Your task to perform on an android device: toggle location history Image 0: 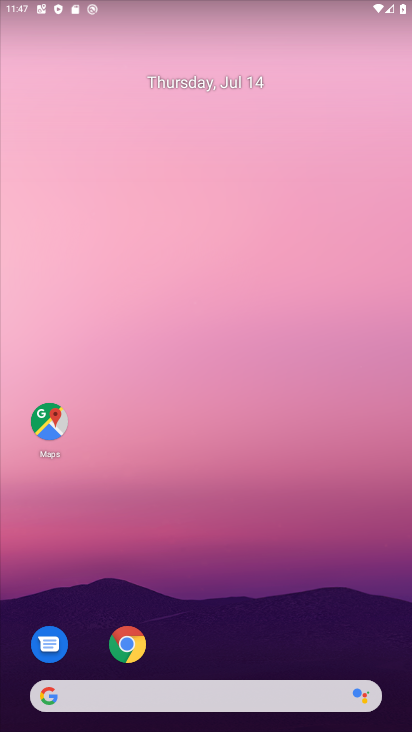
Step 0: drag from (235, 584) to (291, 215)
Your task to perform on an android device: toggle location history Image 1: 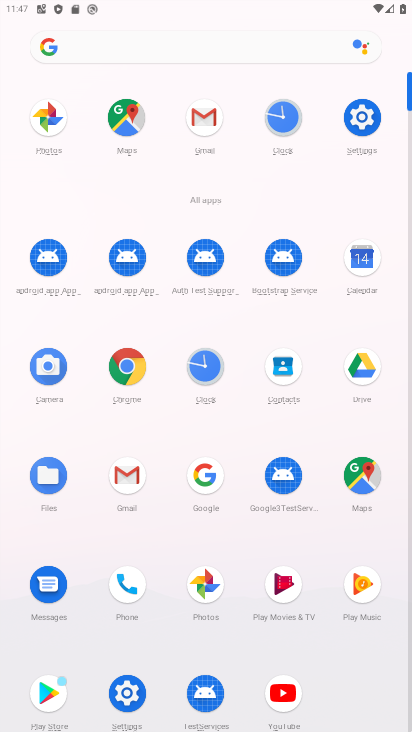
Step 1: click (118, 691)
Your task to perform on an android device: toggle location history Image 2: 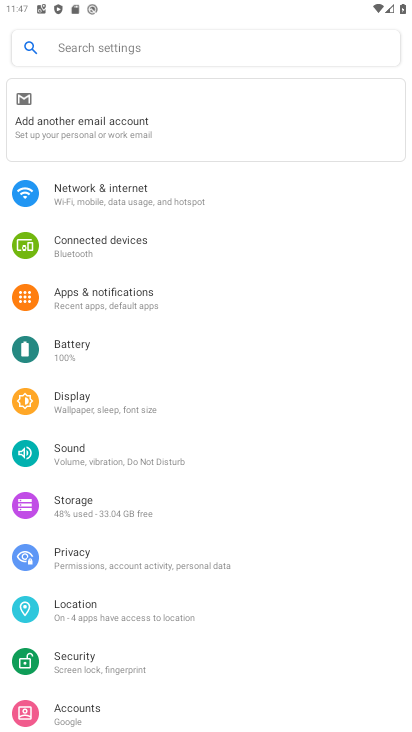
Step 2: click (119, 613)
Your task to perform on an android device: toggle location history Image 3: 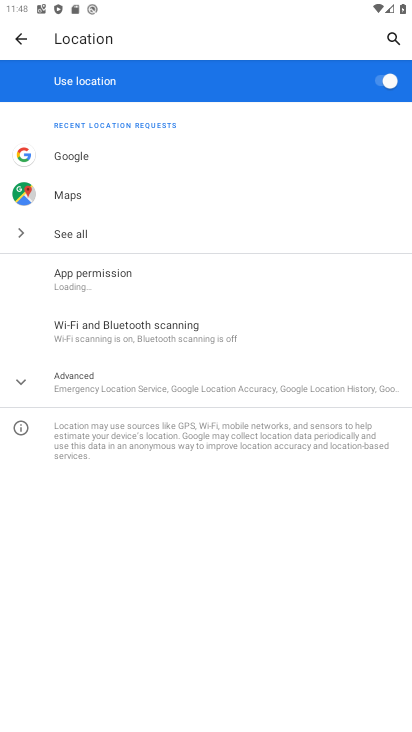
Step 3: click (106, 382)
Your task to perform on an android device: toggle location history Image 4: 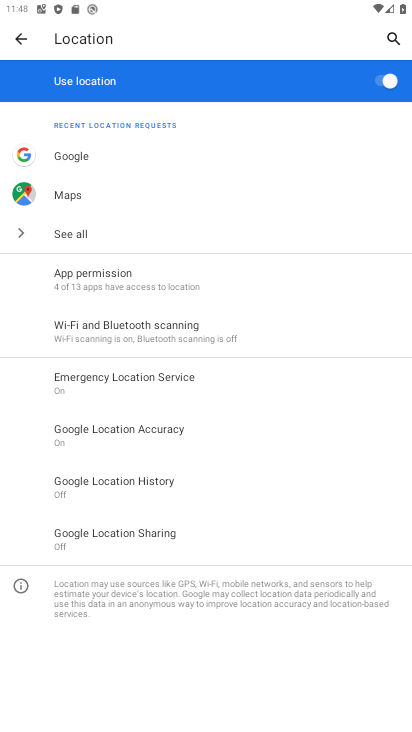
Step 4: click (160, 483)
Your task to perform on an android device: toggle location history Image 5: 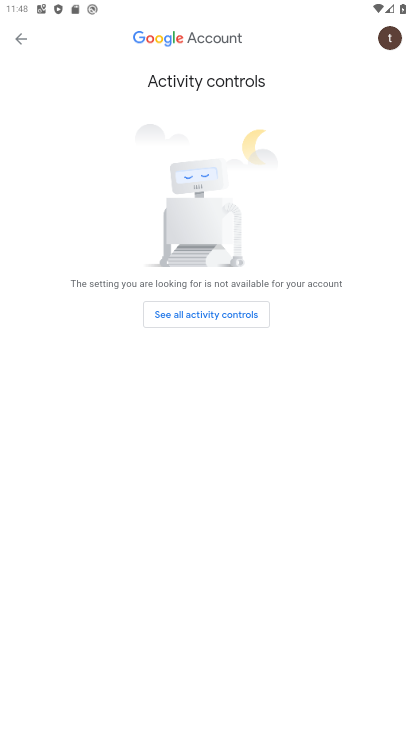
Step 5: task complete